Your task to perform on an android device: Open battery settings Image 0: 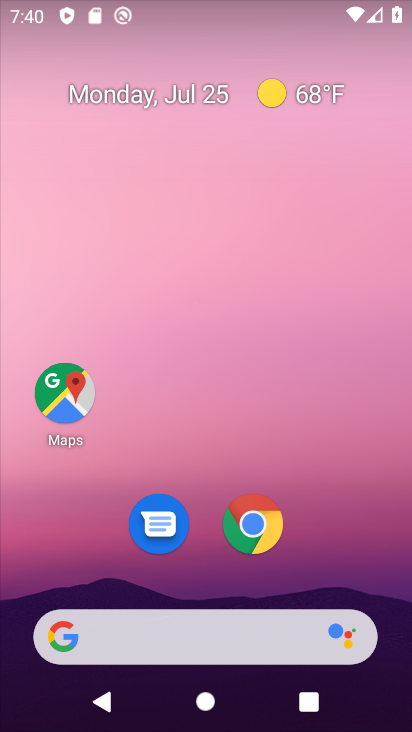
Step 0: drag from (324, 559) to (302, 39)
Your task to perform on an android device: Open battery settings Image 1: 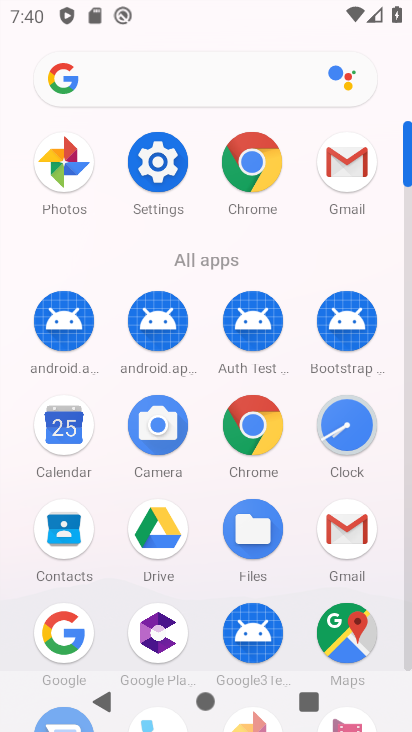
Step 1: click (165, 157)
Your task to perform on an android device: Open battery settings Image 2: 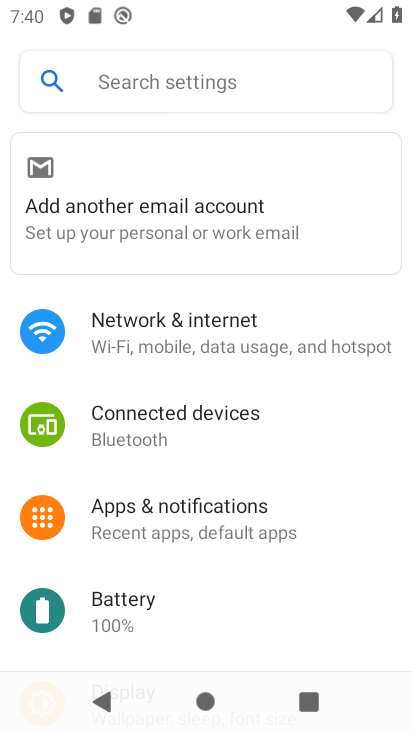
Step 2: click (143, 598)
Your task to perform on an android device: Open battery settings Image 3: 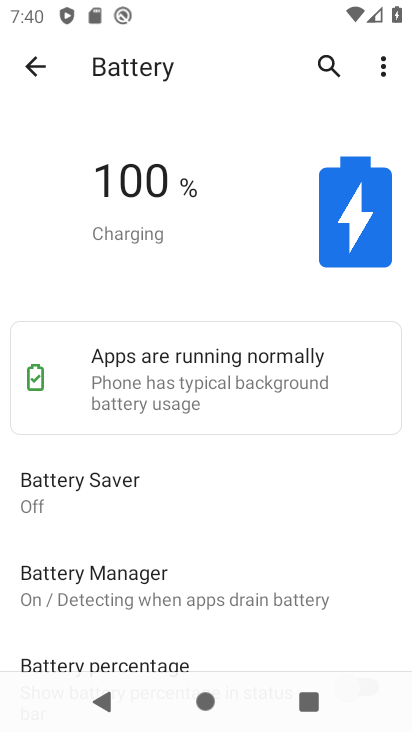
Step 3: task complete